Your task to perform on an android device: Go to display settings Image 0: 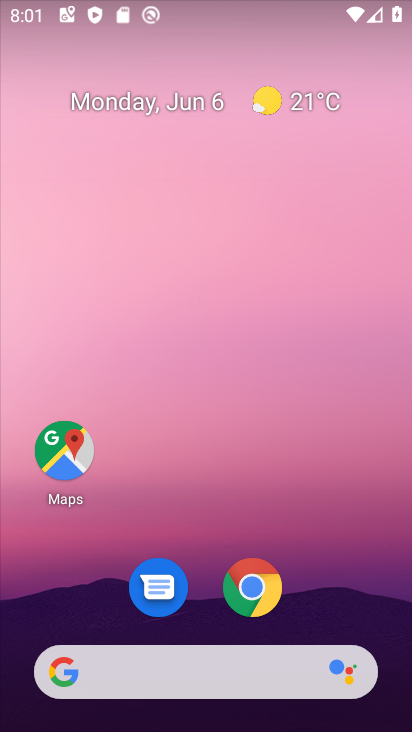
Step 0: drag from (230, 716) to (253, 69)
Your task to perform on an android device: Go to display settings Image 1: 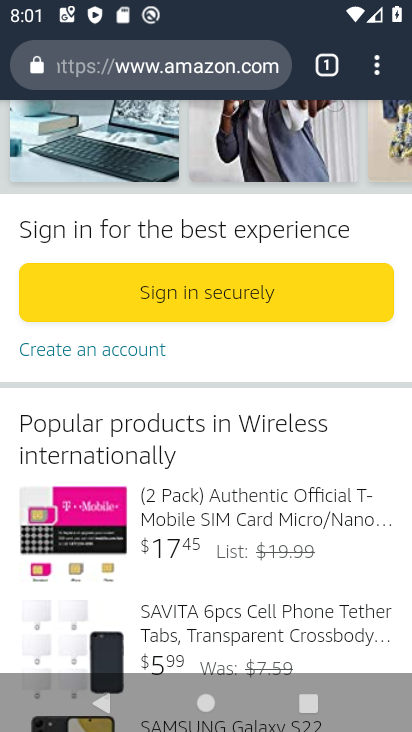
Step 1: press home button
Your task to perform on an android device: Go to display settings Image 2: 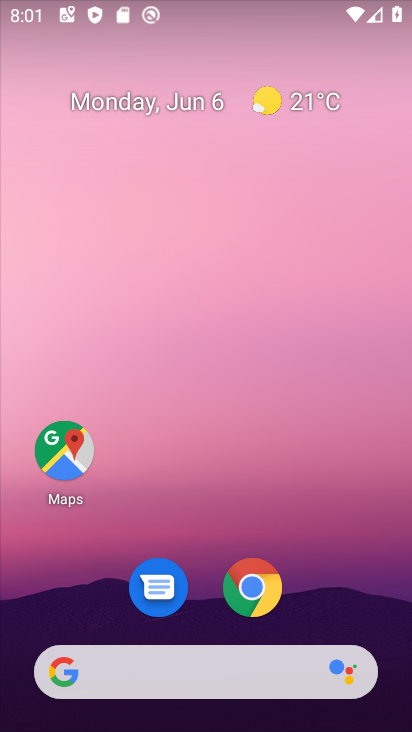
Step 2: drag from (161, 724) to (264, 52)
Your task to perform on an android device: Go to display settings Image 3: 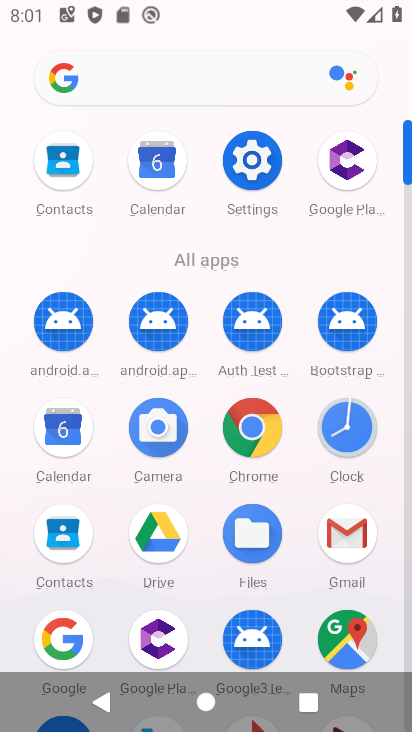
Step 3: click (262, 150)
Your task to perform on an android device: Go to display settings Image 4: 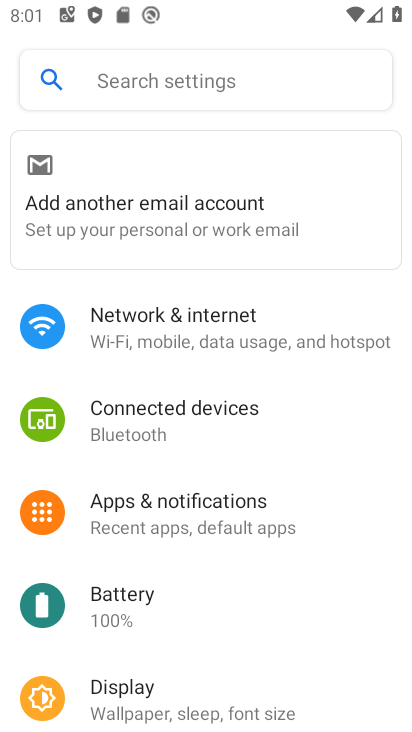
Step 4: click (149, 716)
Your task to perform on an android device: Go to display settings Image 5: 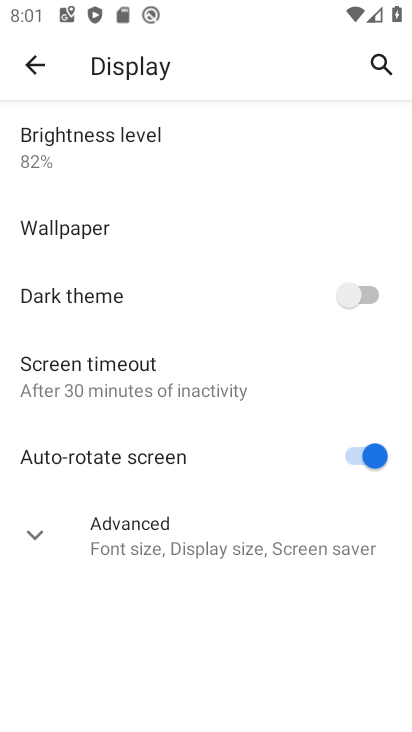
Step 5: task complete